Your task to perform on an android device: install app "Google Play Games" Image 0: 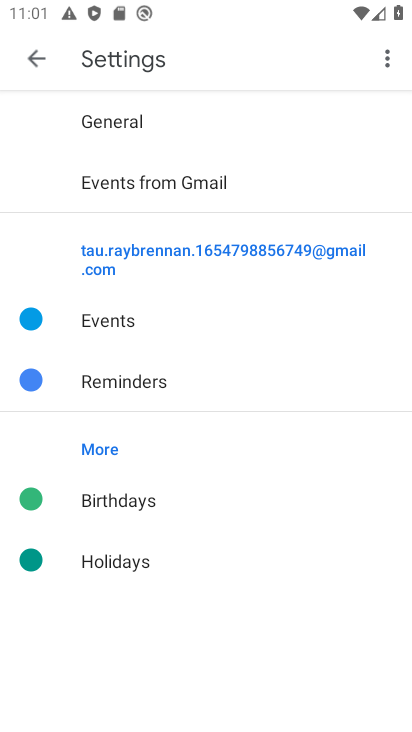
Step 0: press home button
Your task to perform on an android device: install app "Google Play Games" Image 1: 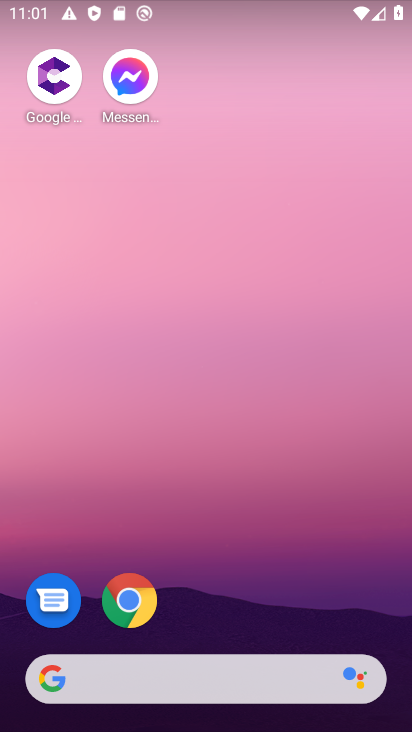
Step 1: drag from (132, 545) to (227, 277)
Your task to perform on an android device: install app "Google Play Games" Image 2: 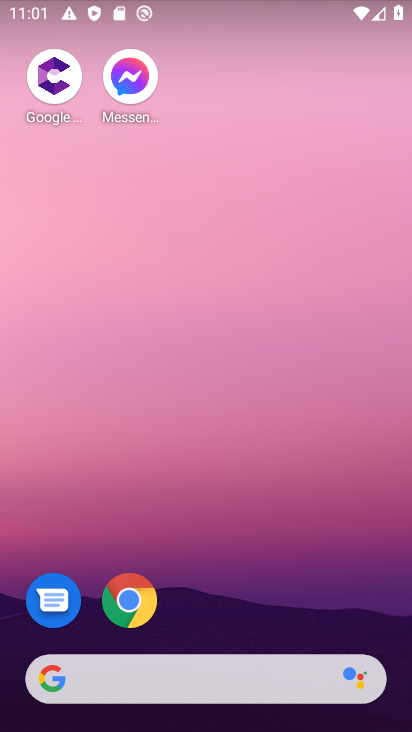
Step 2: drag from (157, 725) to (266, 1)
Your task to perform on an android device: install app "Google Play Games" Image 3: 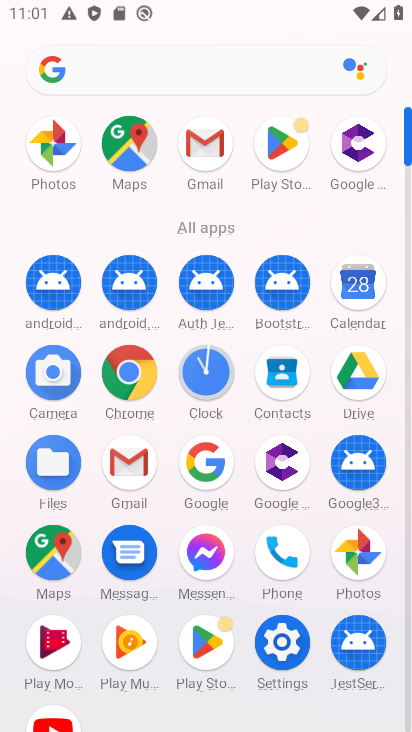
Step 3: click (293, 145)
Your task to perform on an android device: install app "Google Play Games" Image 4: 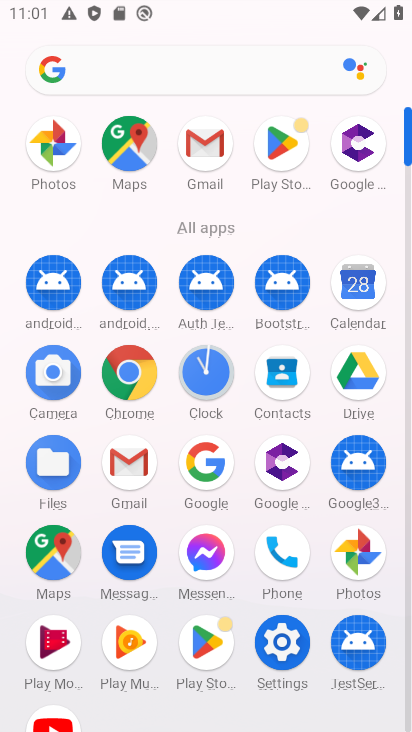
Step 4: click (293, 145)
Your task to perform on an android device: install app "Google Play Games" Image 5: 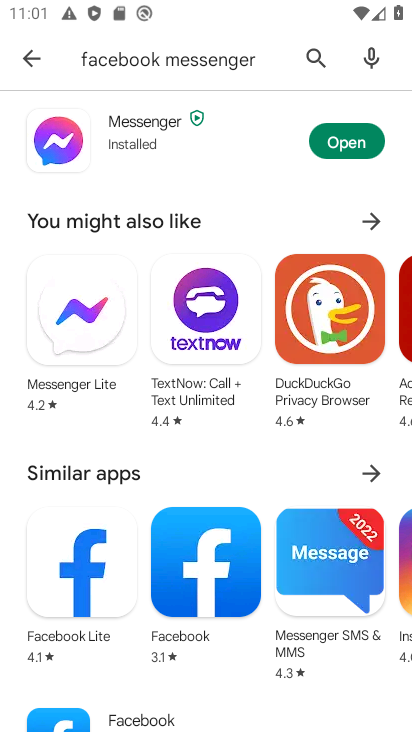
Step 5: click (310, 55)
Your task to perform on an android device: install app "Google Play Games" Image 6: 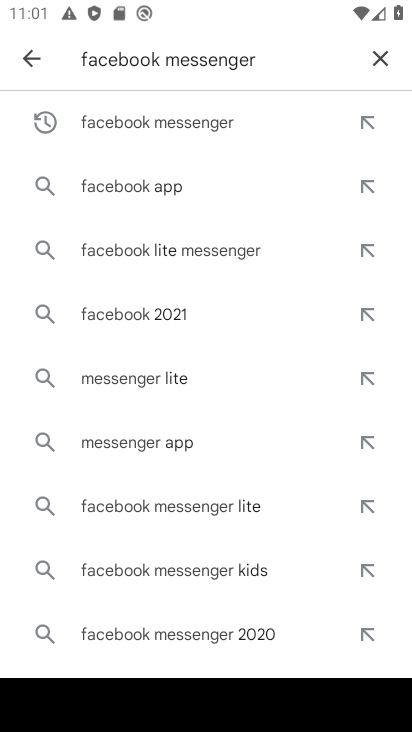
Step 6: click (390, 63)
Your task to perform on an android device: install app "Google Play Games" Image 7: 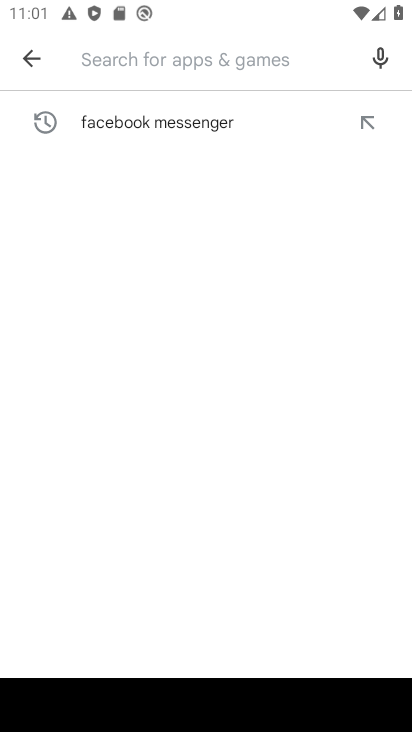
Step 7: type "Google Play Games"
Your task to perform on an android device: install app "Google Play Games" Image 8: 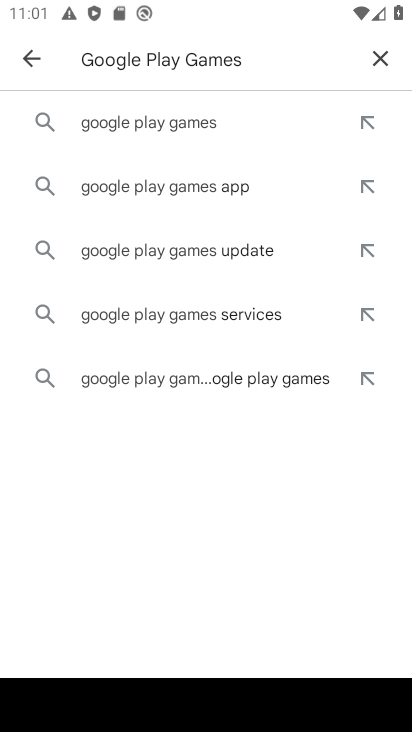
Step 8: click (243, 121)
Your task to perform on an android device: install app "Google Play Games" Image 9: 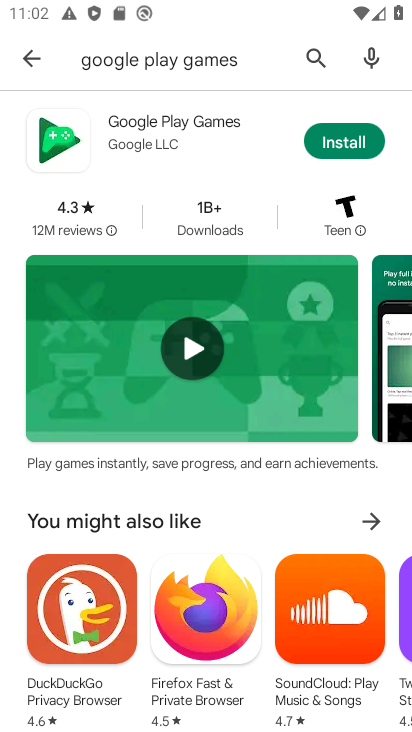
Step 9: click (345, 147)
Your task to perform on an android device: install app "Google Play Games" Image 10: 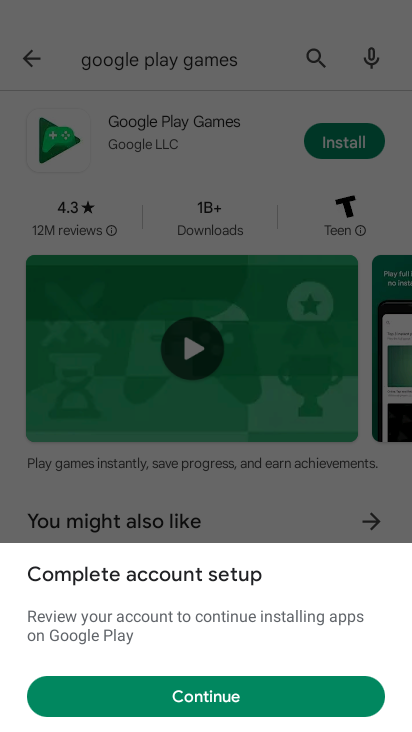
Step 10: click (139, 699)
Your task to perform on an android device: install app "Google Play Games" Image 11: 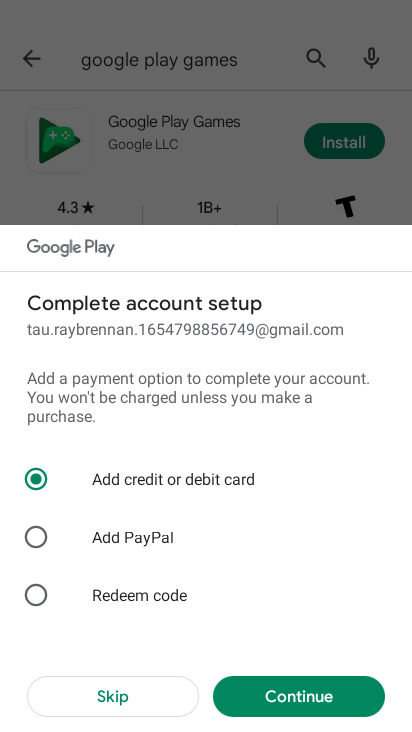
Step 11: click (74, 686)
Your task to perform on an android device: install app "Google Play Games" Image 12: 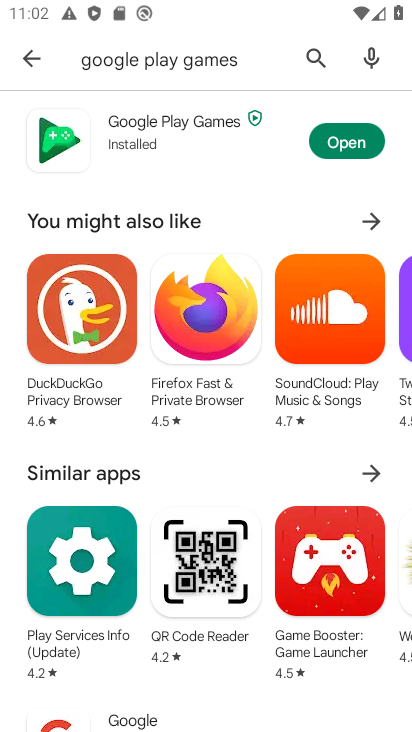
Step 12: task complete